Your task to perform on an android device: Open accessibility settings Image 0: 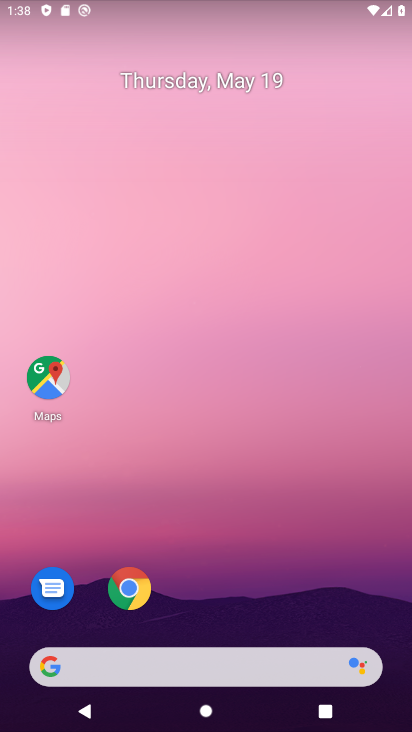
Step 0: press home button
Your task to perform on an android device: Open accessibility settings Image 1: 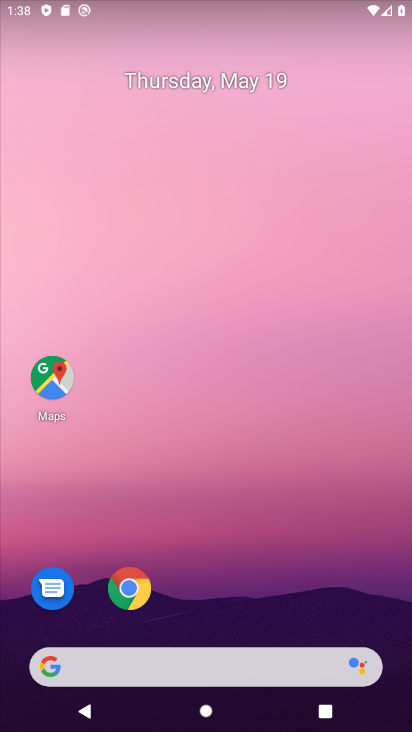
Step 1: drag from (192, 547) to (198, 115)
Your task to perform on an android device: Open accessibility settings Image 2: 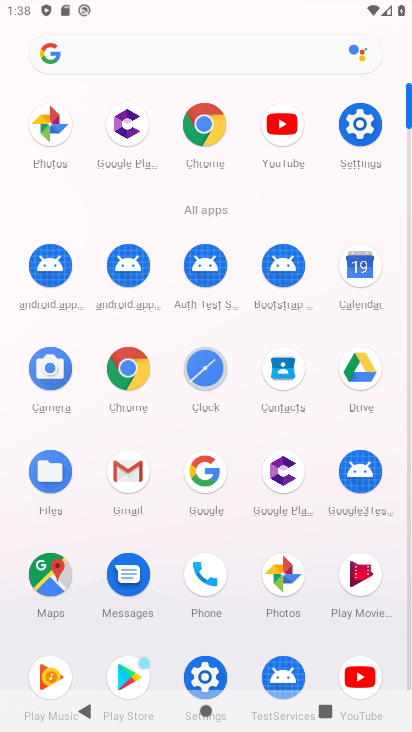
Step 2: click (366, 127)
Your task to perform on an android device: Open accessibility settings Image 3: 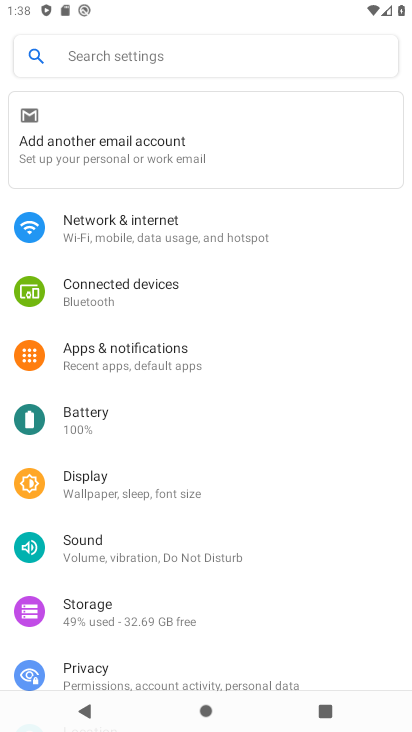
Step 3: drag from (225, 607) to (183, 229)
Your task to perform on an android device: Open accessibility settings Image 4: 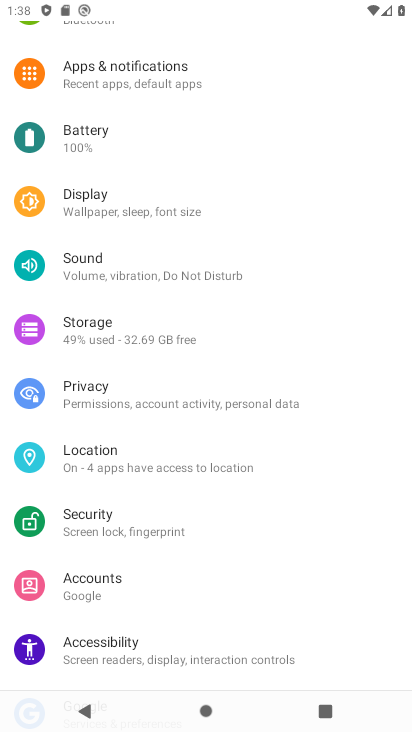
Step 4: click (106, 660)
Your task to perform on an android device: Open accessibility settings Image 5: 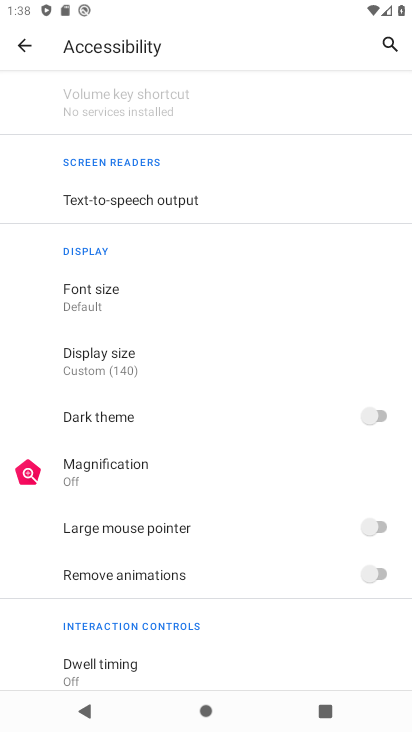
Step 5: task complete